Your task to perform on an android device: turn notification dots off Image 0: 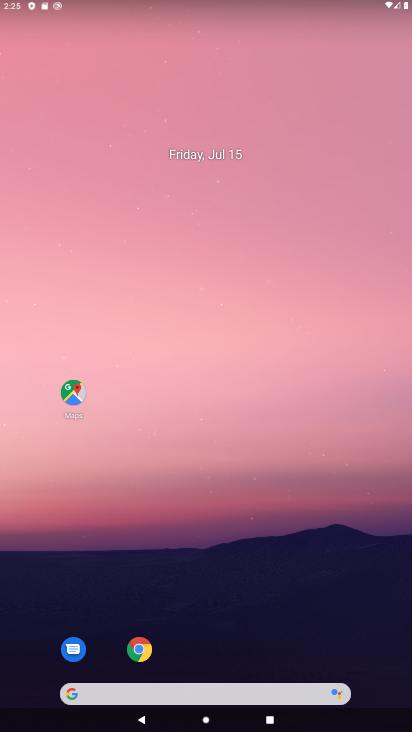
Step 0: drag from (293, 593) to (183, 1)
Your task to perform on an android device: turn notification dots off Image 1: 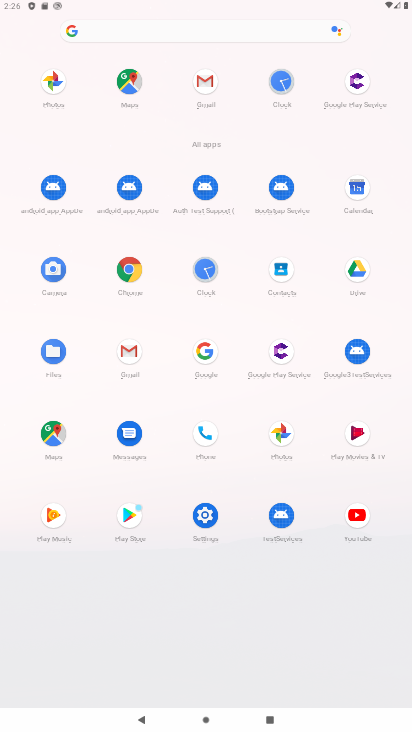
Step 1: click (203, 517)
Your task to perform on an android device: turn notification dots off Image 2: 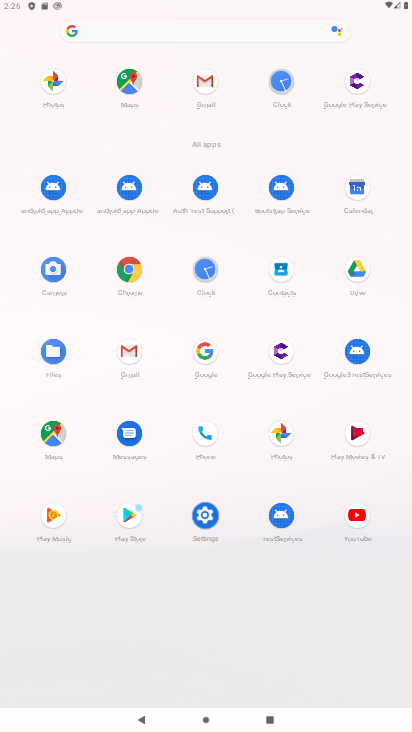
Step 2: click (203, 517)
Your task to perform on an android device: turn notification dots off Image 3: 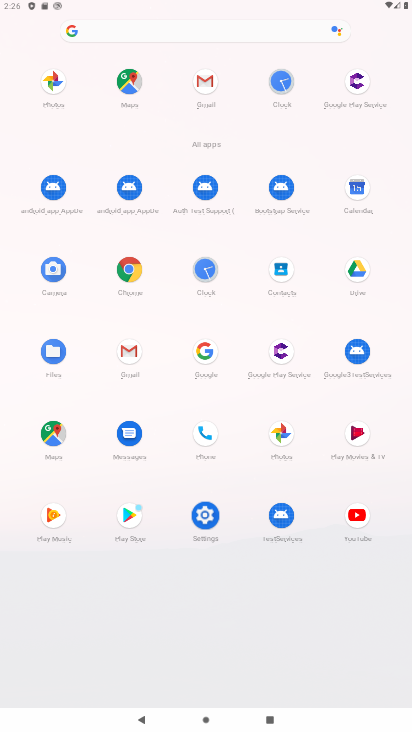
Step 3: click (204, 516)
Your task to perform on an android device: turn notification dots off Image 4: 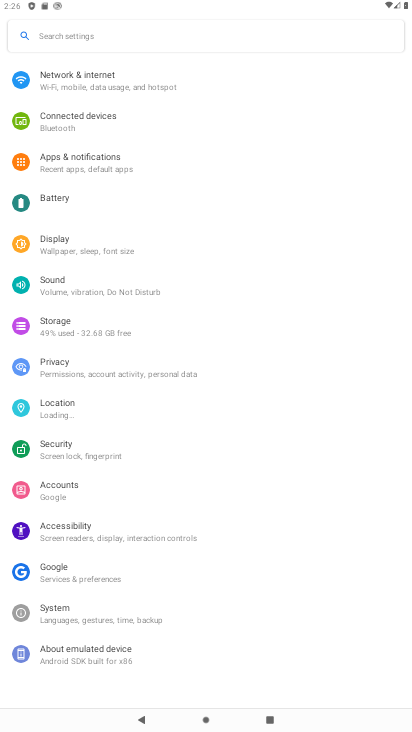
Step 4: click (204, 517)
Your task to perform on an android device: turn notification dots off Image 5: 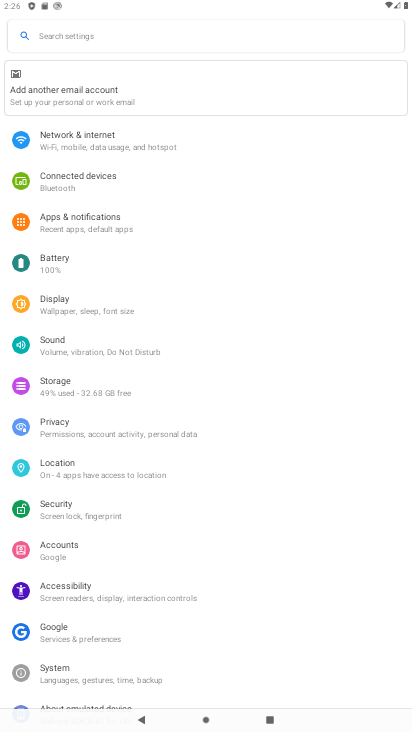
Step 5: click (82, 215)
Your task to perform on an android device: turn notification dots off Image 6: 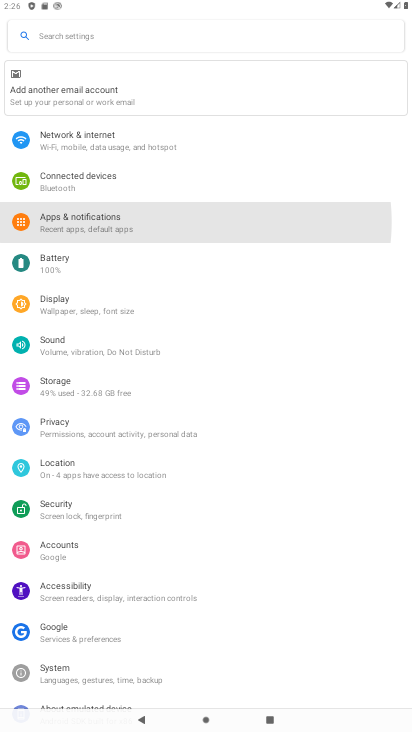
Step 6: click (83, 214)
Your task to perform on an android device: turn notification dots off Image 7: 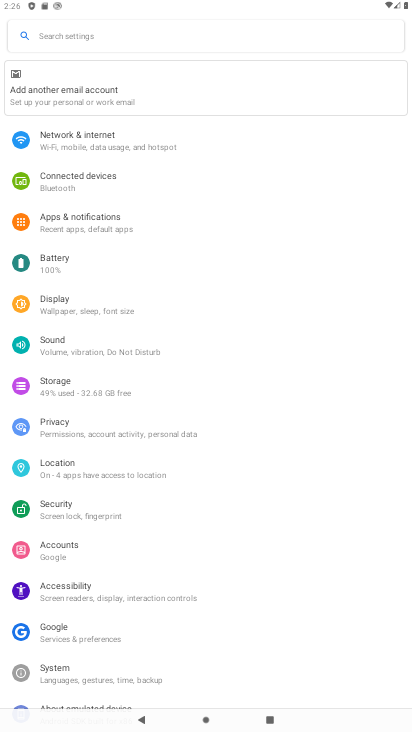
Step 7: click (92, 210)
Your task to perform on an android device: turn notification dots off Image 8: 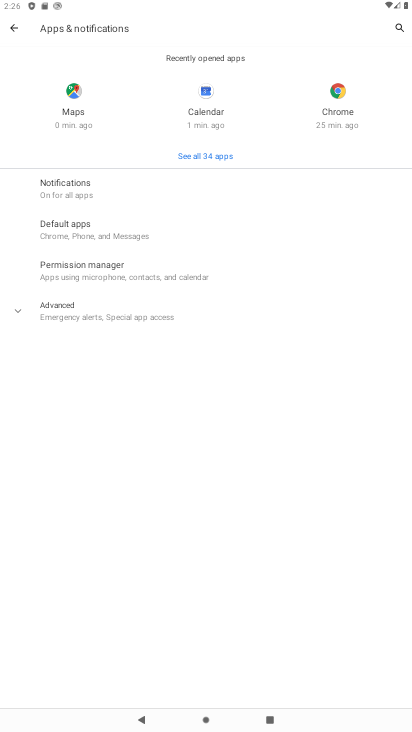
Step 8: click (69, 189)
Your task to perform on an android device: turn notification dots off Image 9: 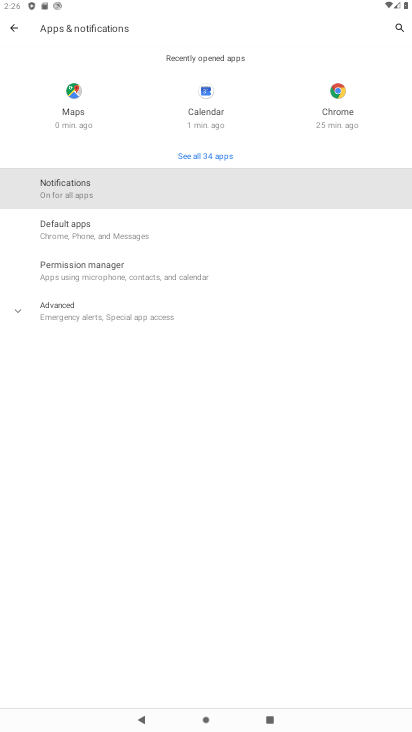
Step 9: click (70, 188)
Your task to perform on an android device: turn notification dots off Image 10: 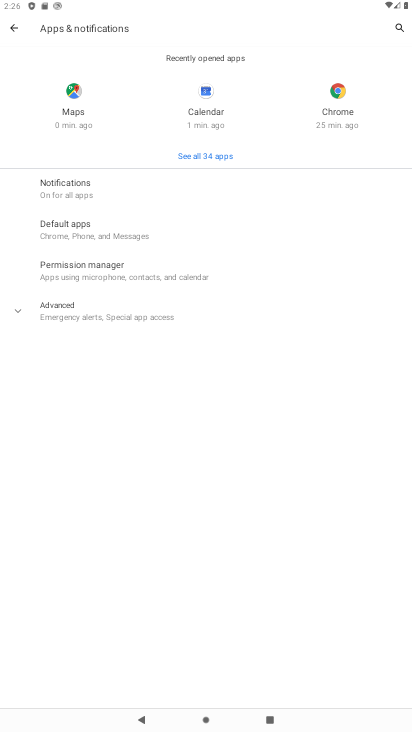
Step 10: click (72, 189)
Your task to perform on an android device: turn notification dots off Image 11: 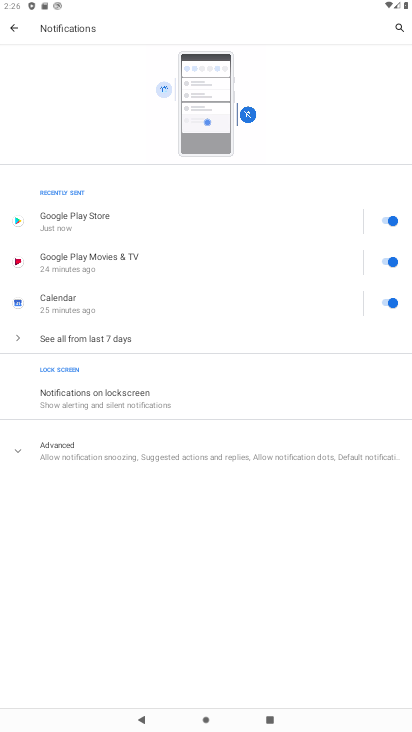
Step 11: click (141, 458)
Your task to perform on an android device: turn notification dots off Image 12: 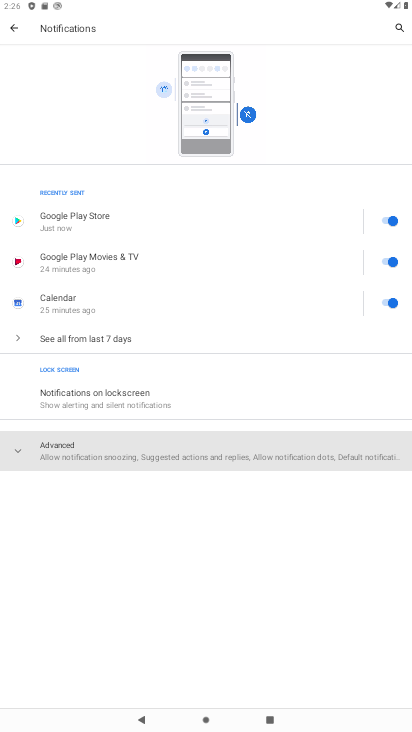
Step 12: click (140, 460)
Your task to perform on an android device: turn notification dots off Image 13: 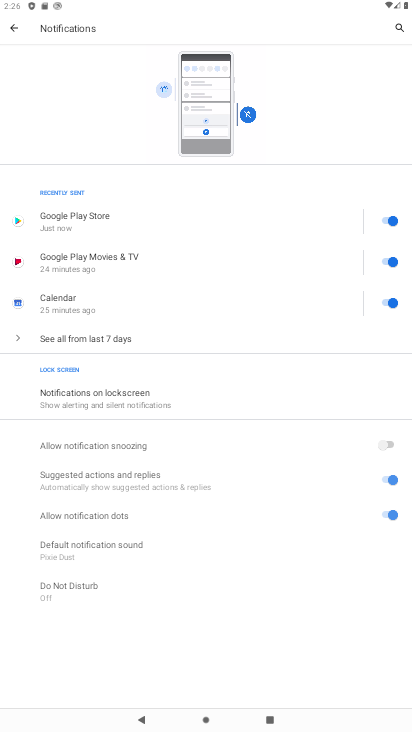
Step 13: click (140, 460)
Your task to perform on an android device: turn notification dots off Image 14: 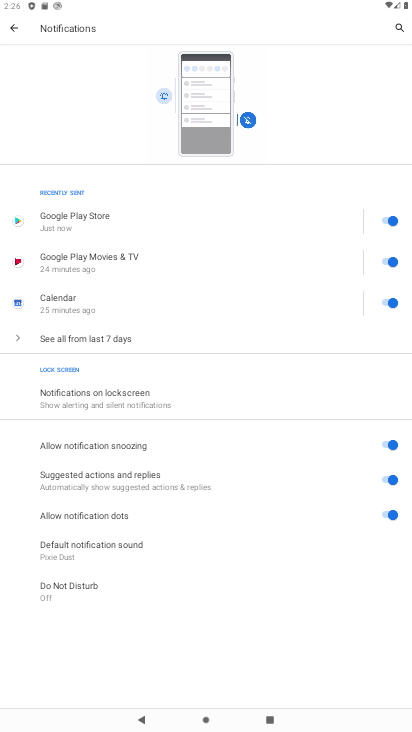
Step 14: click (395, 516)
Your task to perform on an android device: turn notification dots off Image 15: 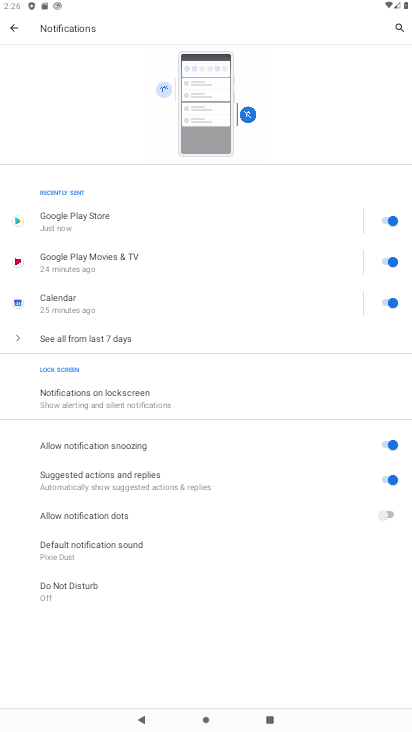
Step 15: task complete